Your task to perform on an android device: Search for "rayovac triple a" on amazon.com, select the first entry, add it to the cart, then select checkout. Image 0: 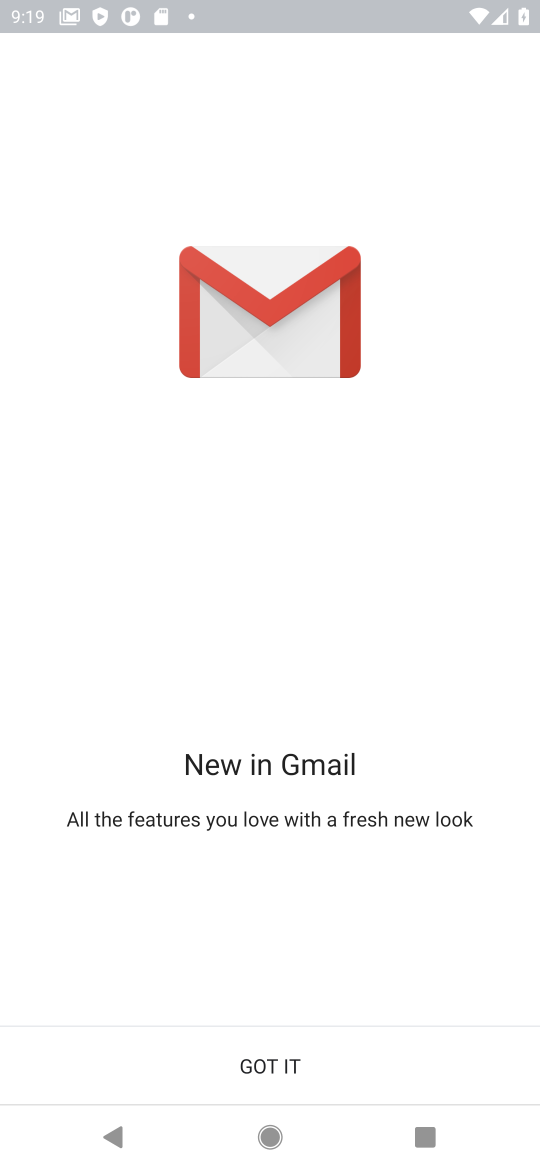
Step 0: press home button
Your task to perform on an android device: Search for "rayovac triple a" on amazon.com, select the first entry, add it to the cart, then select checkout. Image 1: 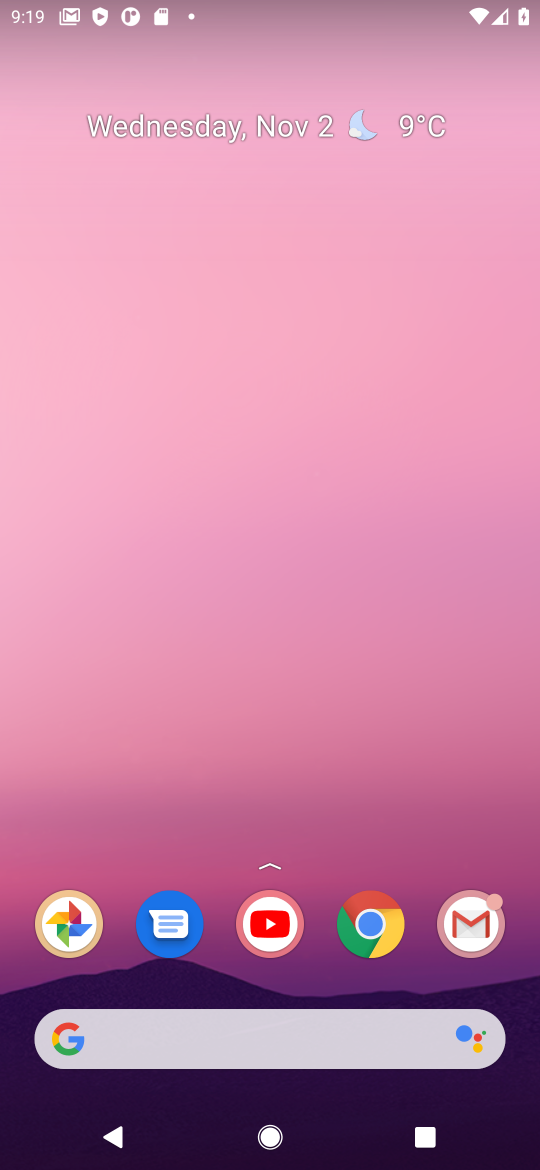
Step 1: click (371, 915)
Your task to perform on an android device: Search for "rayovac triple a" on amazon.com, select the first entry, add it to the cart, then select checkout. Image 2: 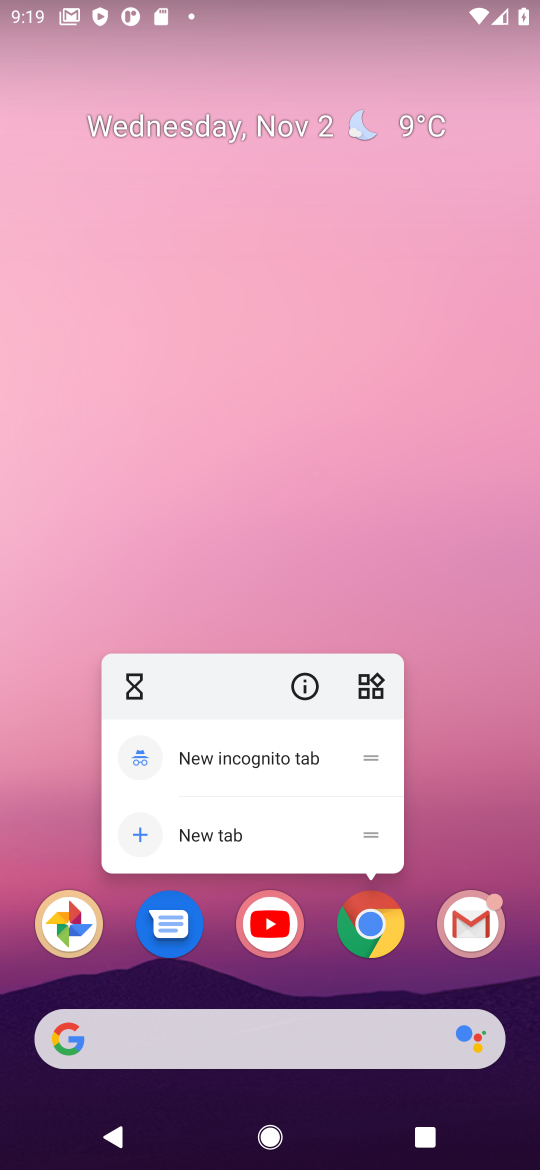
Step 2: click (387, 917)
Your task to perform on an android device: Search for "rayovac triple a" on amazon.com, select the first entry, add it to the cart, then select checkout. Image 3: 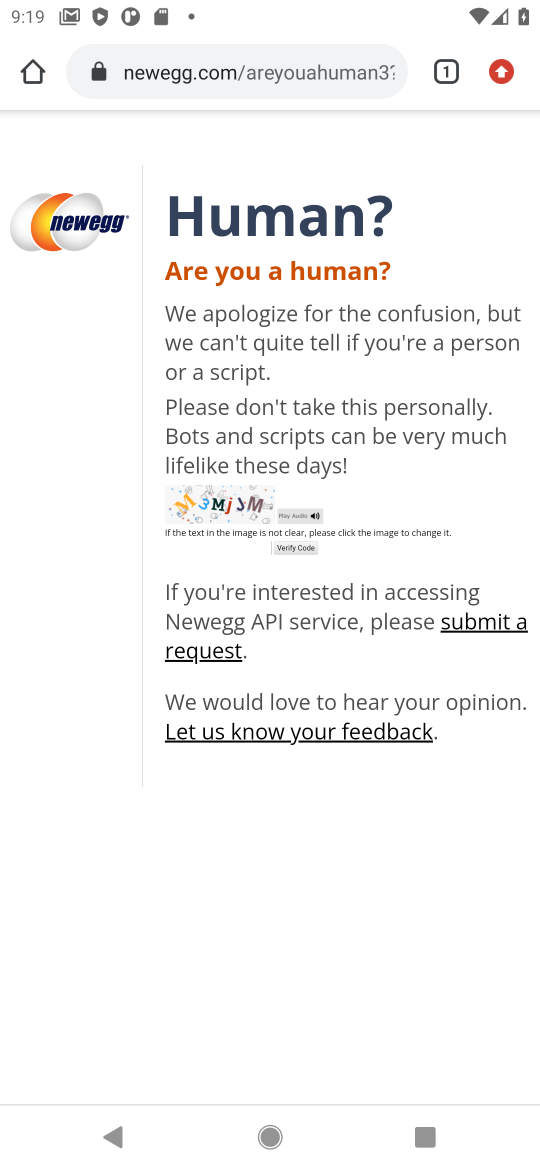
Step 3: press back button
Your task to perform on an android device: Search for "rayovac triple a" on amazon.com, select the first entry, add it to the cart, then select checkout. Image 4: 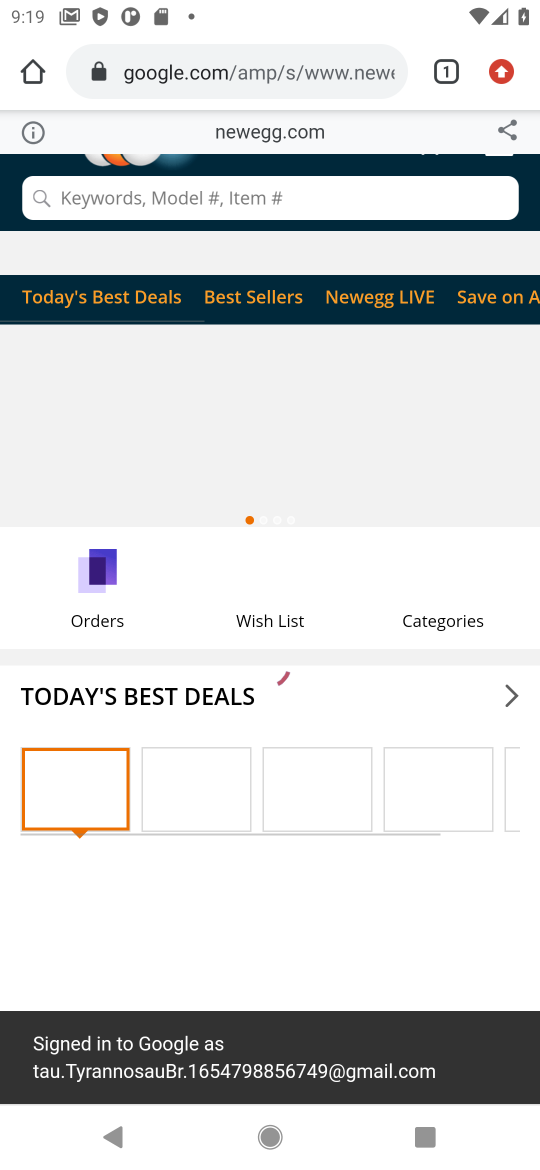
Step 4: click (192, 73)
Your task to perform on an android device: Search for "rayovac triple a" on amazon.com, select the first entry, add it to the cart, then select checkout. Image 5: 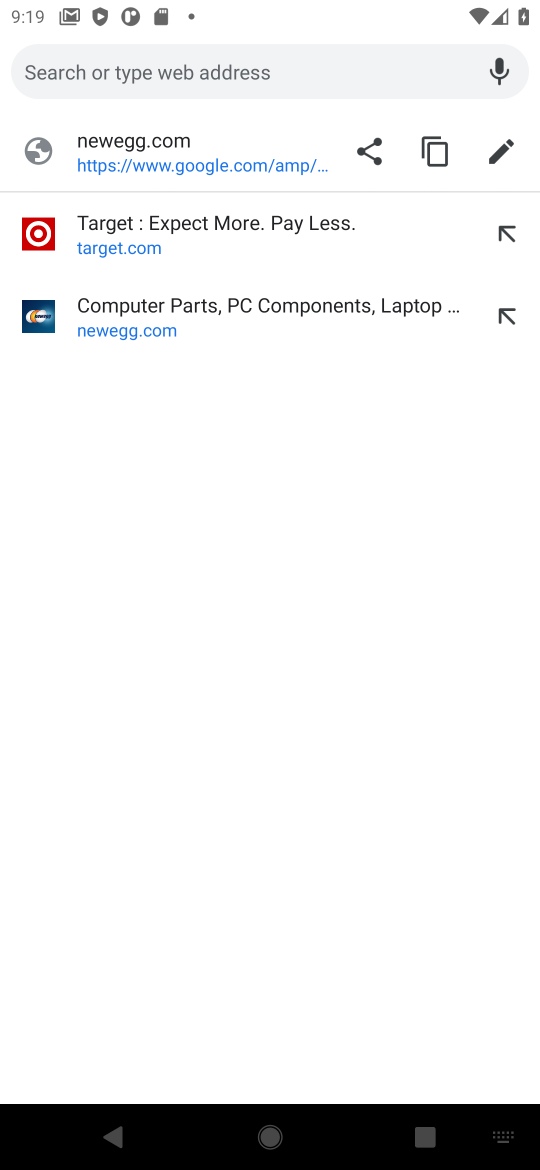
Step 5: type "amazon"
Your task to perform on an android device: Search for "rayovac triple a" on amazon.com, select the first entry, add it to the cart, then select checkout. Image 6: 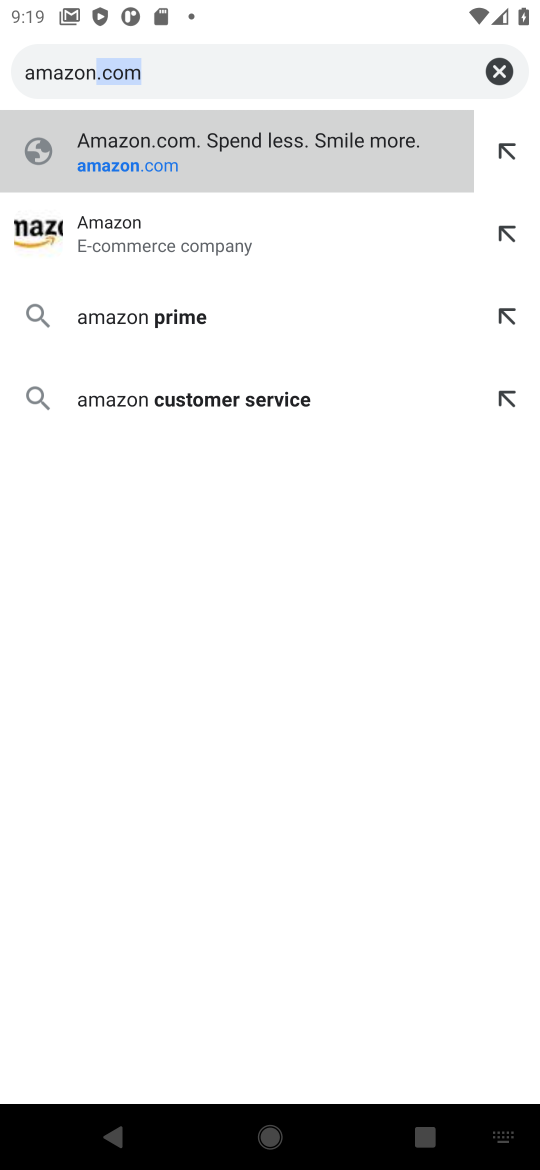
Step 6: type ""
Your task to perform on an android device: Search for "rayovac triple a" on amazon.com, select the first entry, add it to the cart, then select checkout. Image 7: 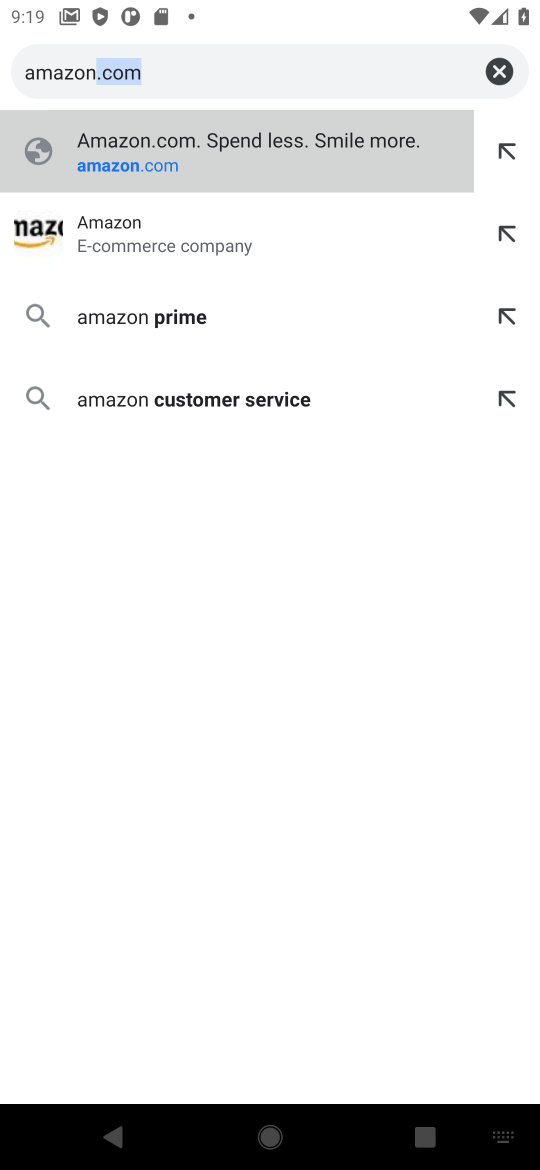
Step 7: click (161, 232)
Your task to perform on an android device: Search for "rayovac triple a" on amazon.com, select the first entry, add it to the cart, then select checkout. Image 8: 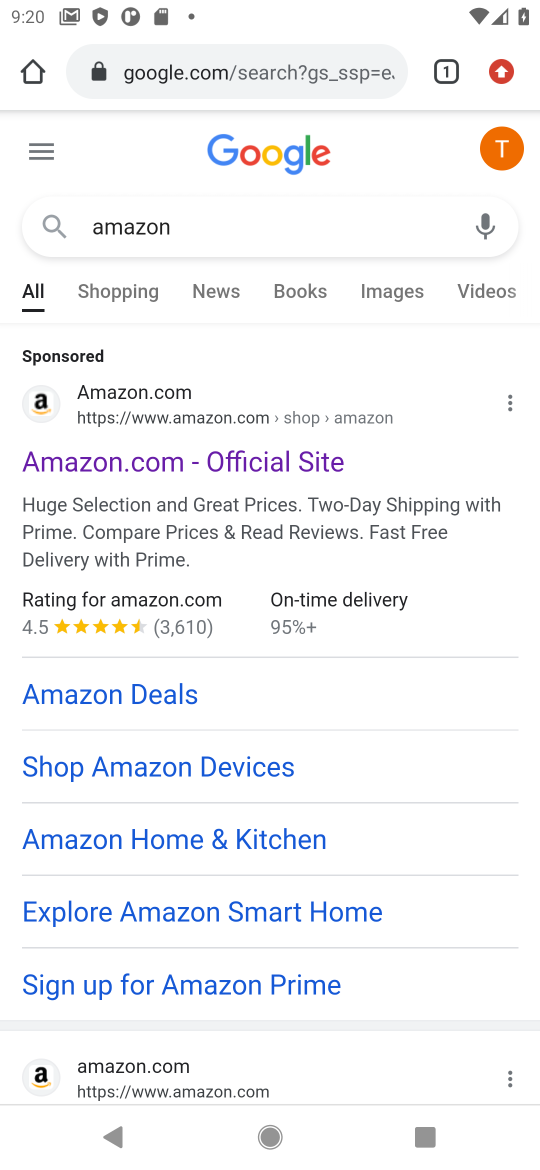
Step 8: click (54, 460)
Your task to perform on an android device: Search for "rayovac triple a" on amazon.com, select the first entry, add it to the cart, then select checkout. Image 9: 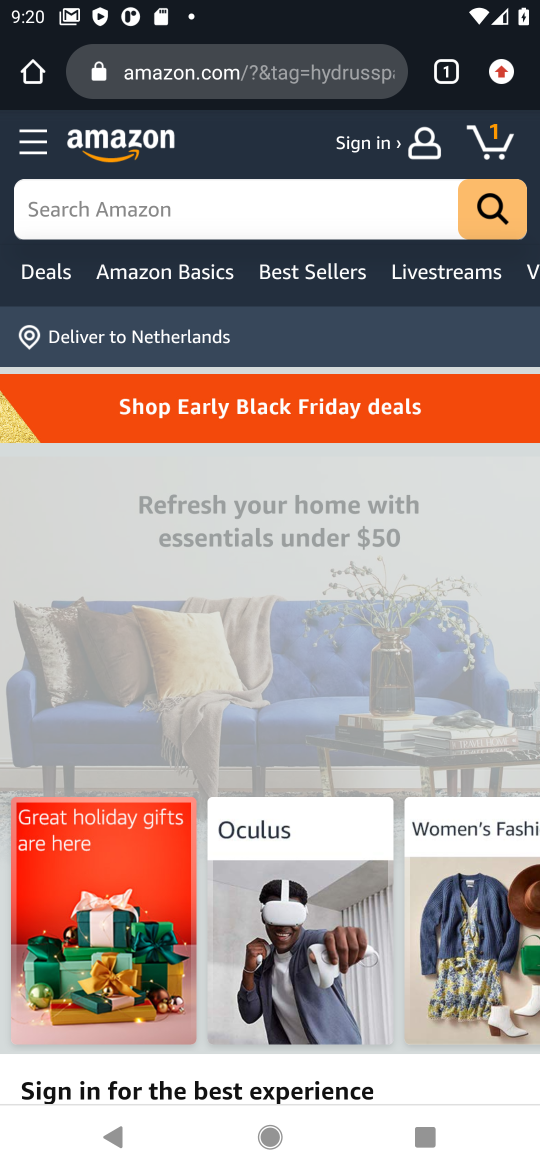
Step 9: click (80, 225)
Your task to perform on an android device: Search for "rayovac triple a" on amazon.com, select the first entry, add it to the cart, then select checkout. Image 10: 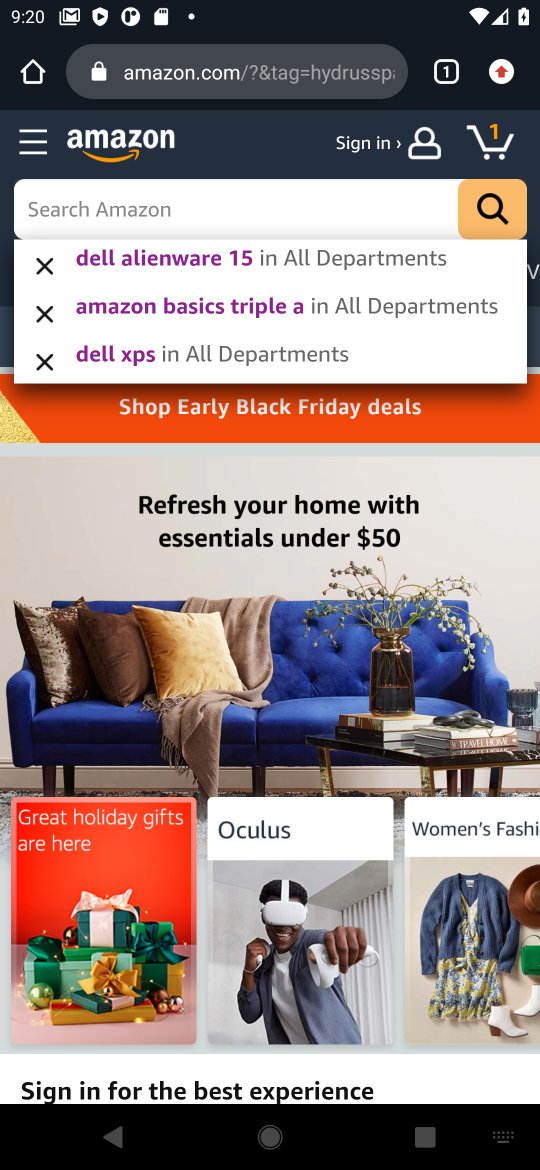
Step 10: type "rayovac triple"
Your task to perform on an android device: Search for "rayovac triple a" on amazon.com, select the first entry, add it to the cart, then select checkout. Image 11: 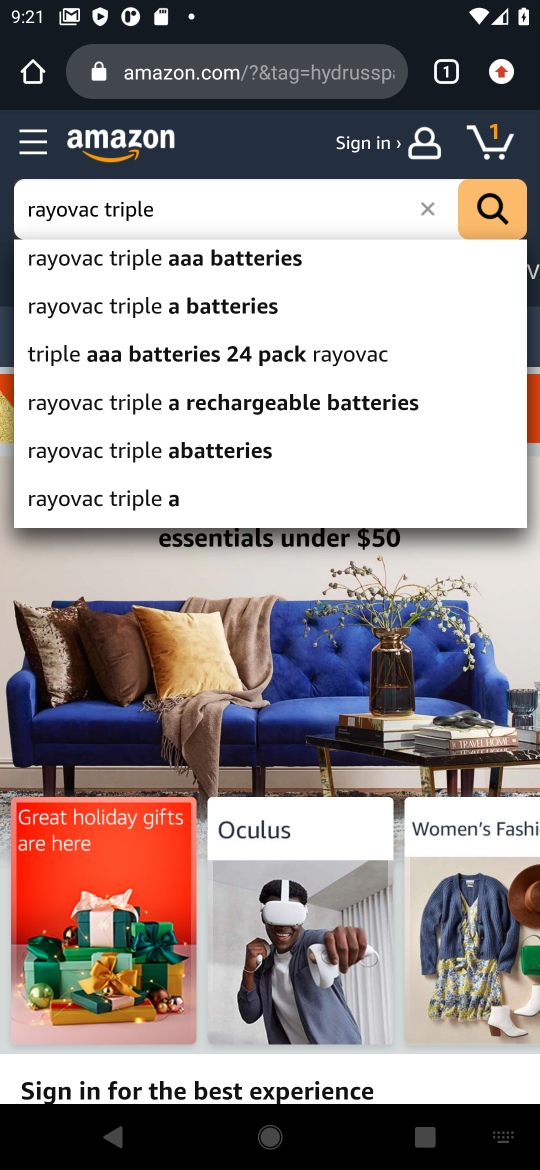
Step 11: click (115, 452)
Your task to perform on an android device: Search for "rayovac triple a" on amazon.com, select the first entry, add it to the cart, then select checkout. Image 12: 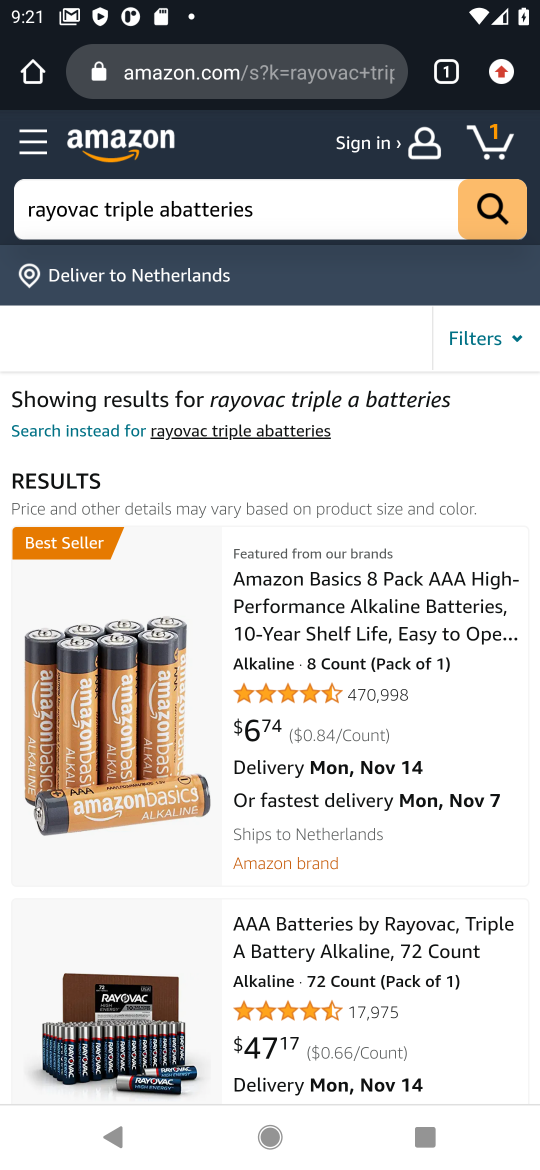
Step 12: click (120, 709)
Your task to perform on an android device: Search for "rayovac triple a" on amazon.com, select the first entry, add it to the cart, then select checkout. Image 13: 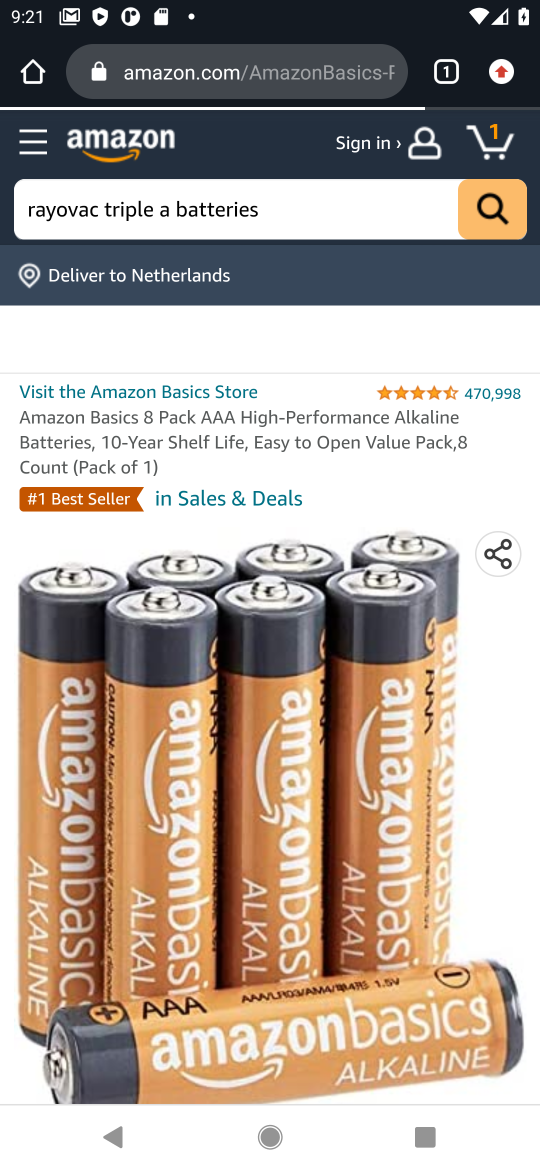
Step 13: drag from (197, 838) to (240, 253)
Your task to perform on an android device: Search for "rayovac triple a" on amazon.com, select the first entry, add it to the cart, then select checkout. Image 14: 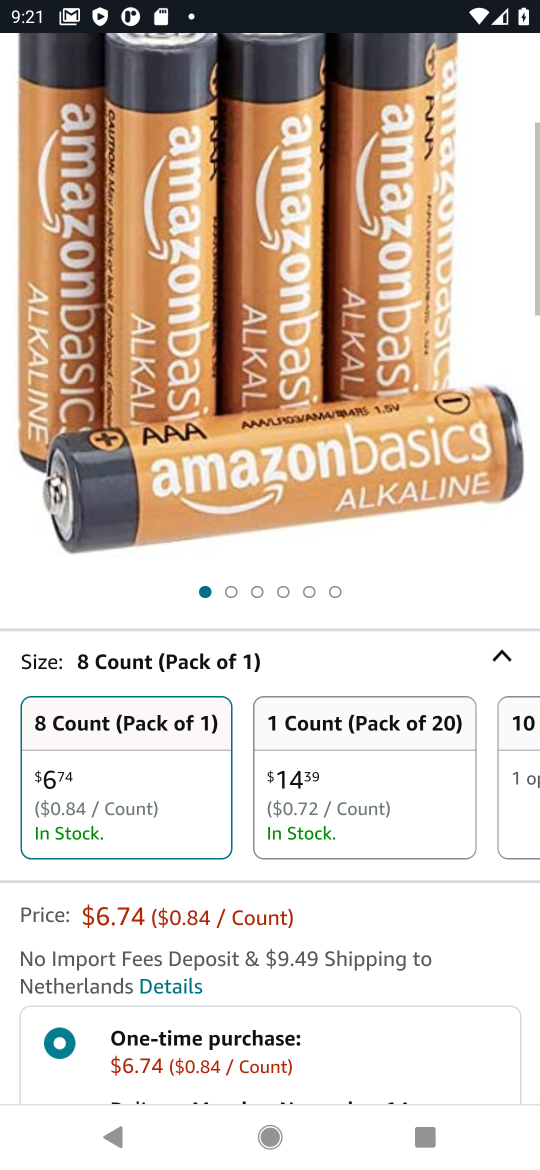
Step 14: drag from (192, 900) to (274, 255)
Your task to perform on an android device: Search for "rayovac triple a" on amazon.com, select the first entry, add it to the cart, then select checkout. Image 15: 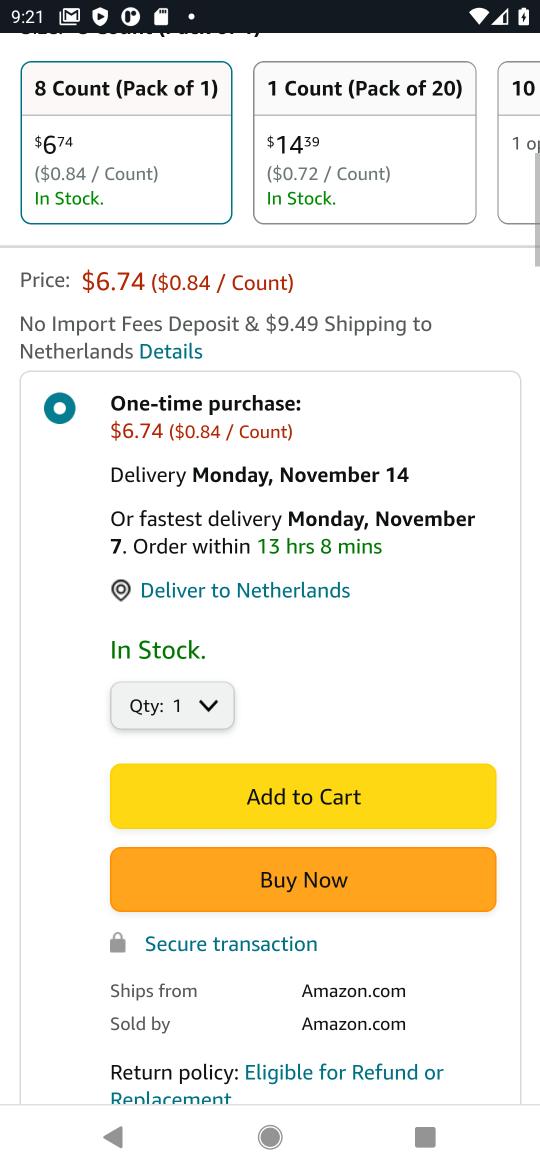
Step 15: drag from (223, 964) to (230, 429)
Your task to perform on an android device: Search for "rayovac triple a" on amazon.com, select the first entry, add it to the cart, then select checkout. Image 16: 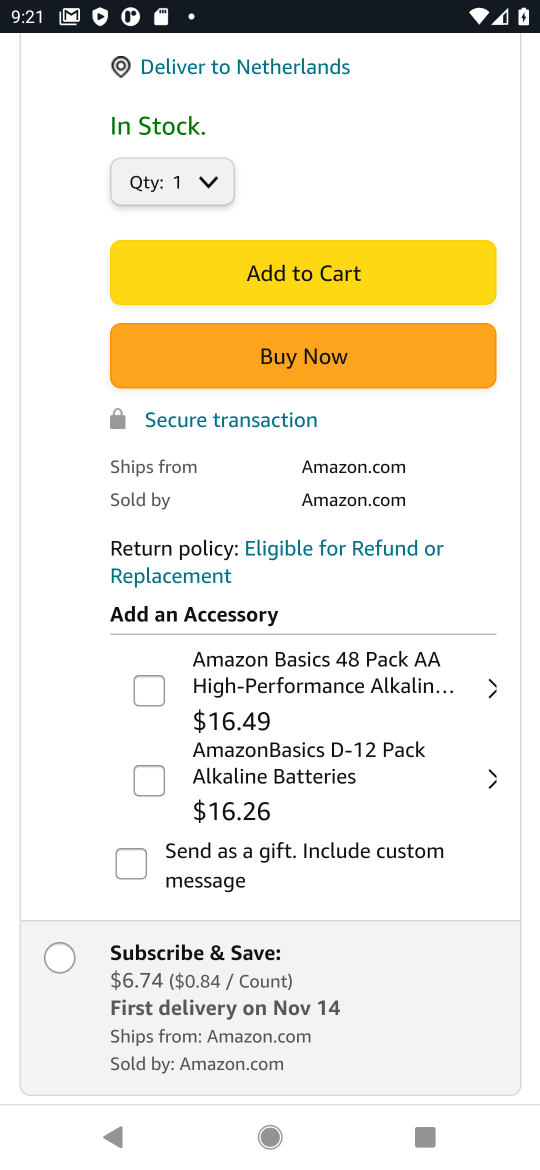
Step 16: drag from (305, 923) to (335, 493)
Your task to perform on an android device: Search for "rayovac triple a" on amazon.com, select the first entry, add it to the cart, then select checkout. Image 17: 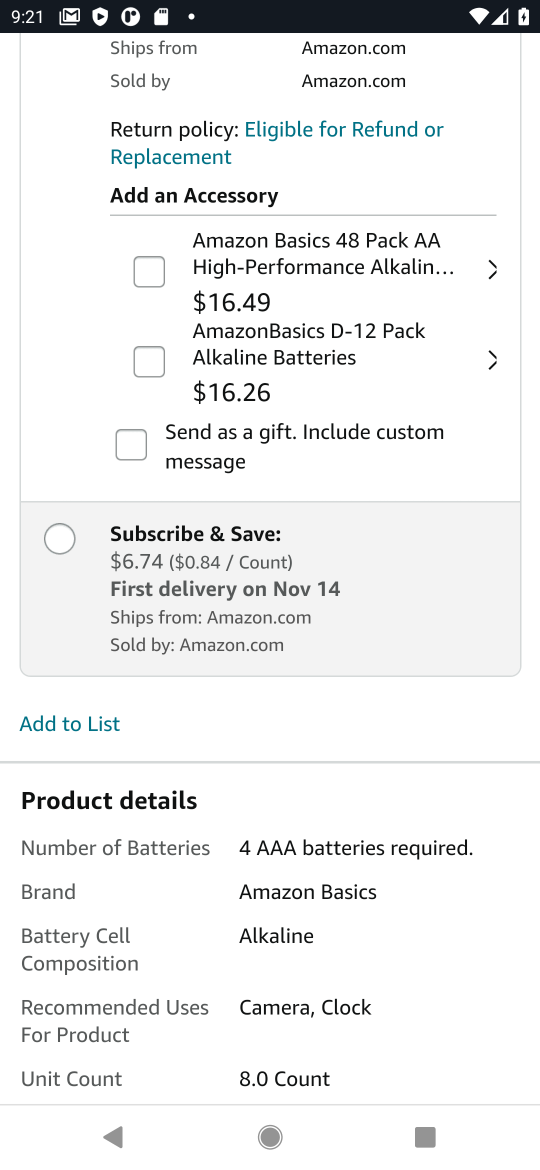
Step 17: drag from (223, 905) to (218, 452)
Your task to perform on an android device: Search for "rayovac triple a" on amazon.com, select the first entry, add it to the cart, then select checkout. Image 18: 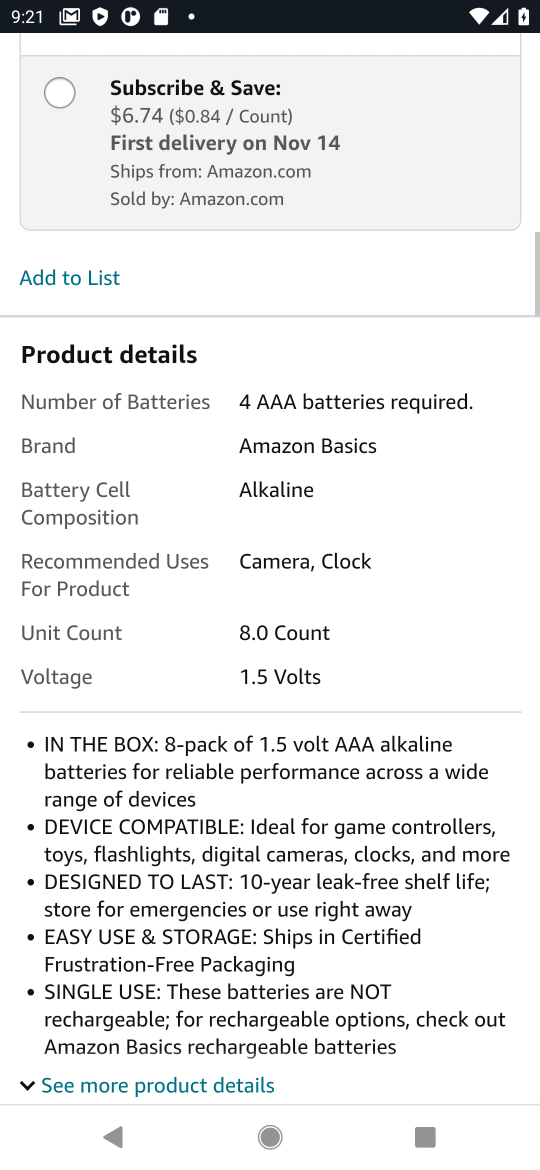
Step 18: drag from (253, 945) to (268, 705)
Your task to perform on an android device: Search for "rayovac triple a" on amazon.com, select the first entry, add it to the cart, then select checkout. Image 19: 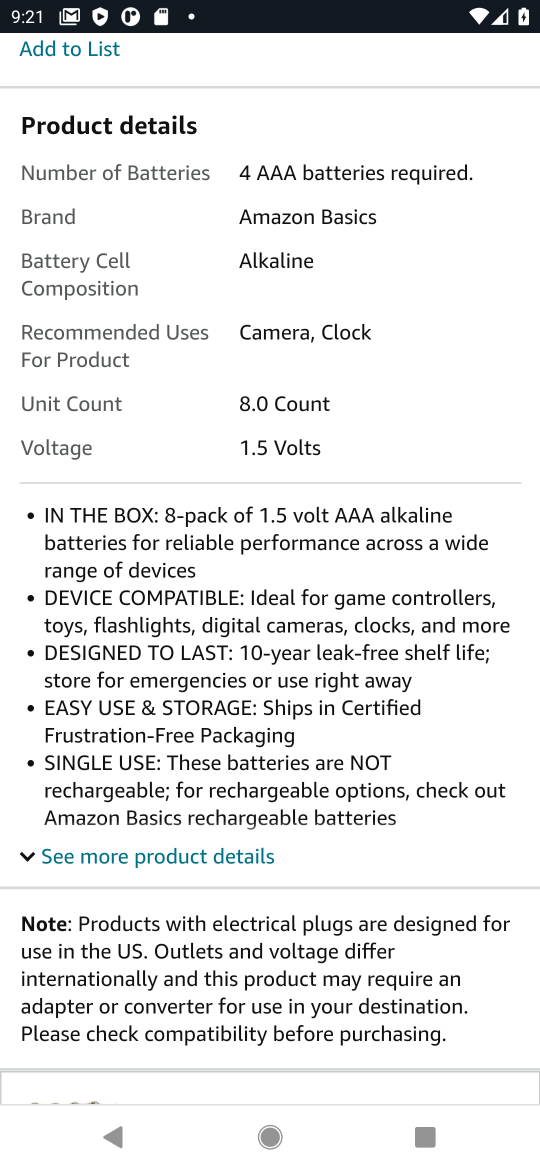
Step 19: press back button
Your task to perform on an android device: Search for "rayovac triple a" on amazon.com, select the first entry, add it to the cart, then select checkout. Image 20: 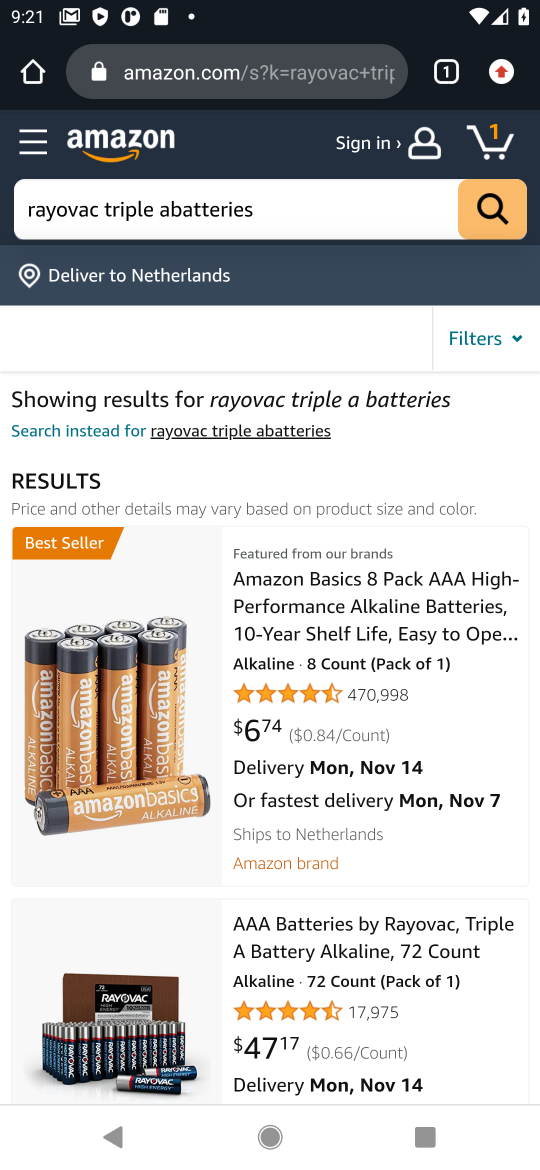
Step 20: click (284, 968)
Your task to perform on an android device: Search for "rayovac triple a" on amazon.com, select the first entry, add it to the cart, then select checkout. Image 21: 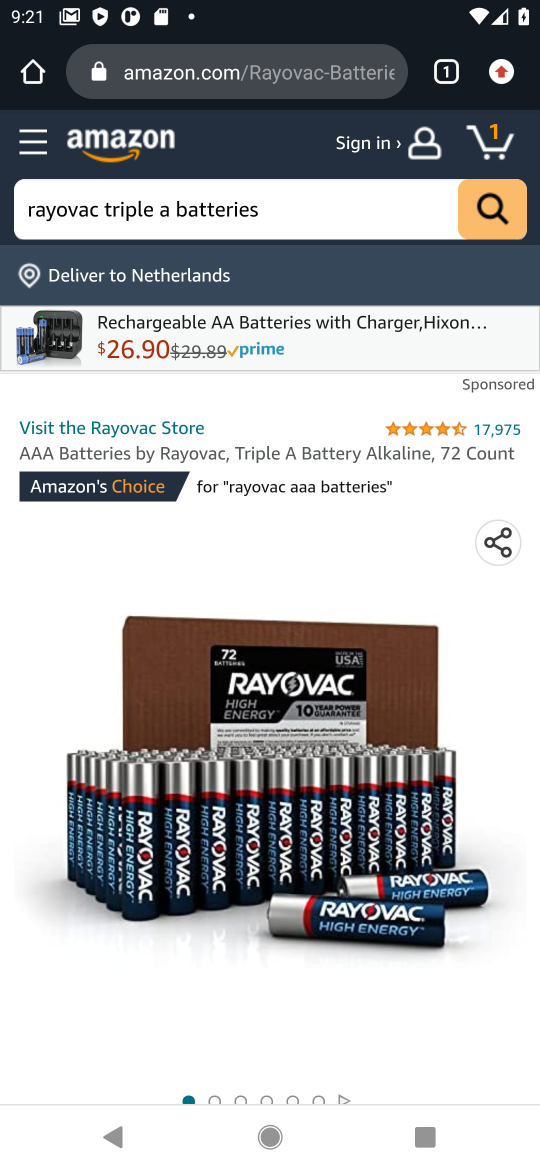
Step 21: drag from (157, 893) to (167, 646)
Your task to perform on an android device: Search for "rayovac triple a" on amazon.com, select the first entry, add it to the cart, then select checkout. Image 22: 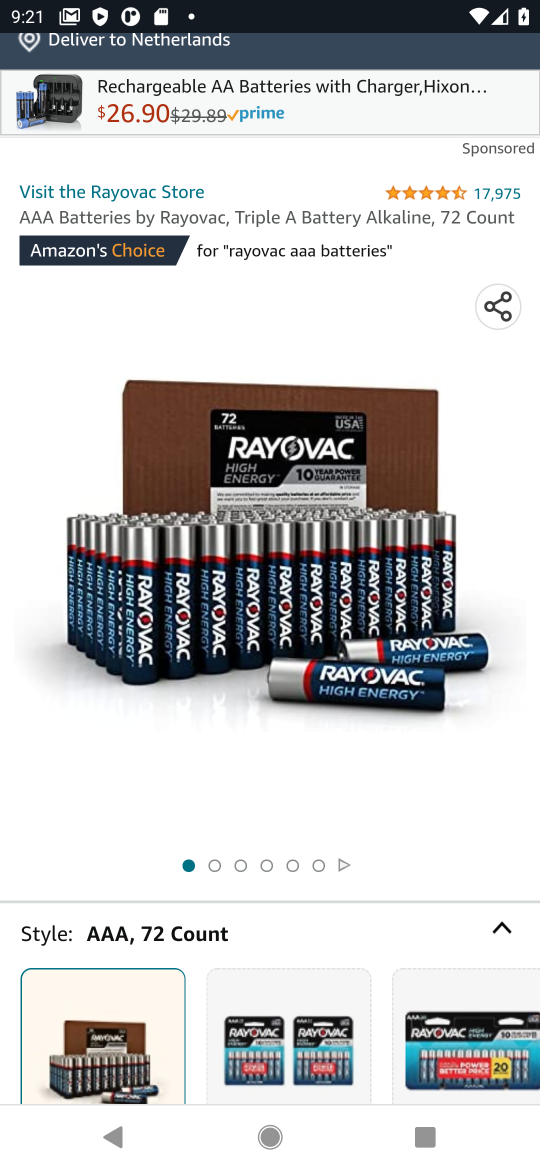
Step 22: drag from (215, 751) to (272, 294)
Your task to perform on an android device: Search for "rayovac triple a" on amazon.com, select the first entry, add it to the cart, then select checkout. Image 23: 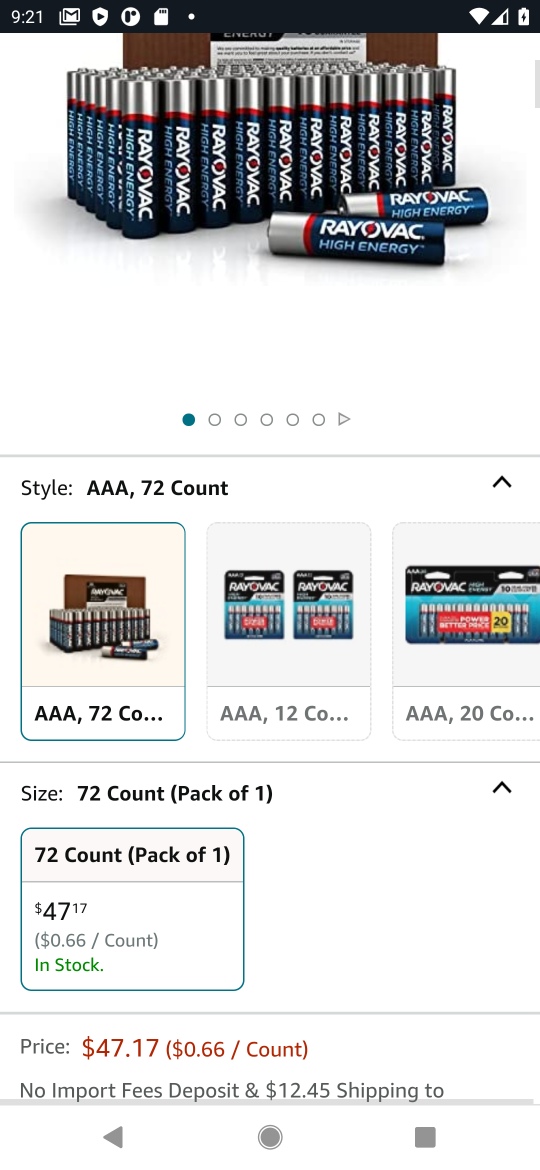
Step 23: drag from (311, 798) to (346, 252)
Your task to perform on an android device: Search for "rayovac triple a" on amazon.com, select the first entry, add it to the cart, then select checkout. Image 24: 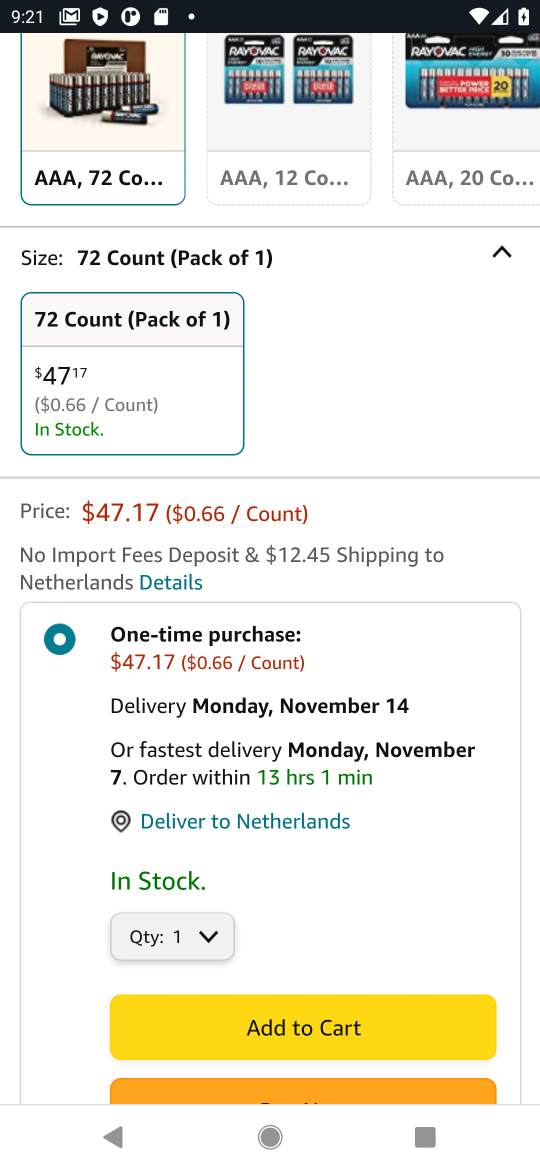
Step 24: click (286, 1019)
Your task to perform on an android device: Search for "rayovac triple a" on amazon.com, select the first entry, add it to the cart, then select checkout. Image 25: 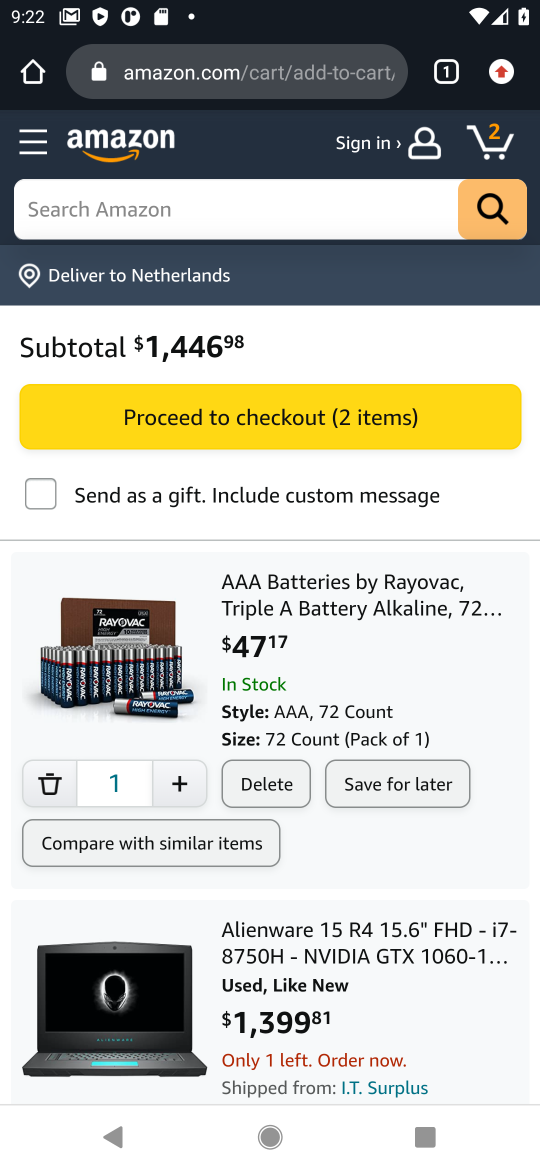
Step 25: click (217, 431)
Your task to perform on an android device: Search for "rayovac triple a" on amazon.com, select the first entry, add it to the cart, then select checkout. Image 26: 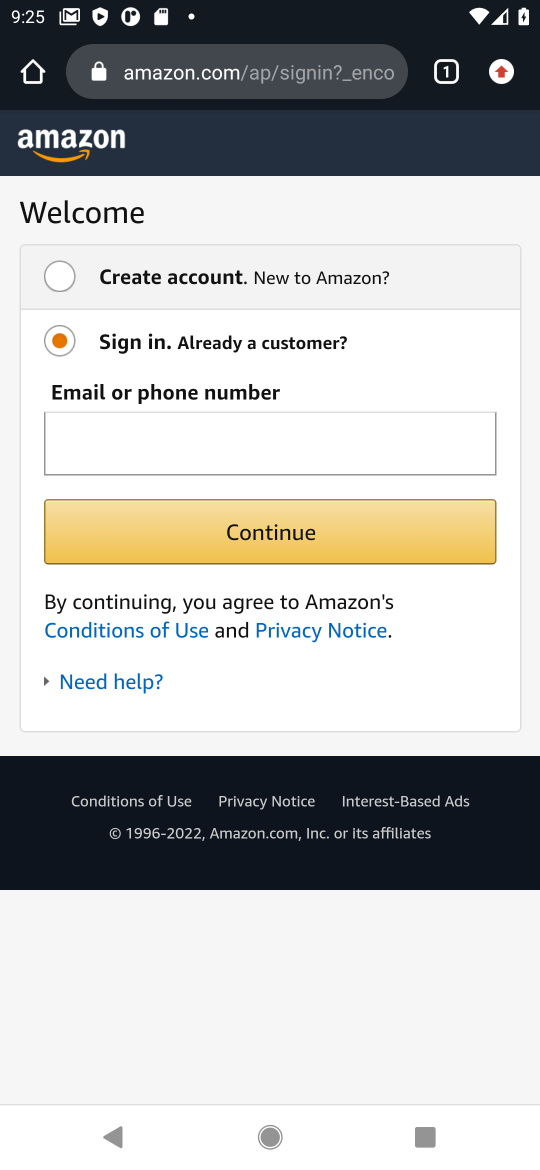
Step 26: task complete